Your task to perform on an android device: Go to network settings Image 0: 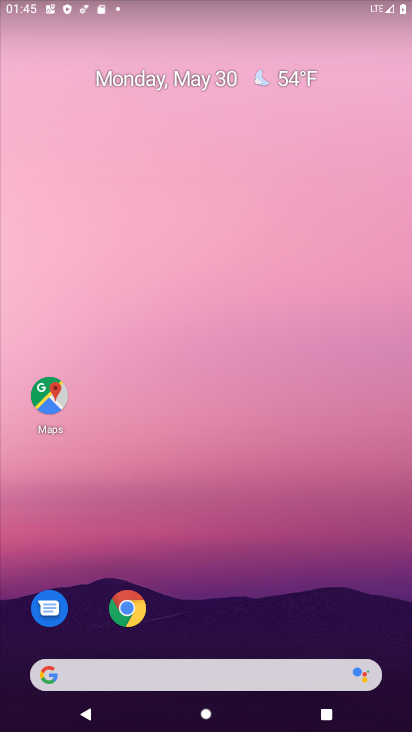
Step 0: drag from (236, 529) to (235, 242)
Your task to perform on an android device: Go to network settings Image 1: 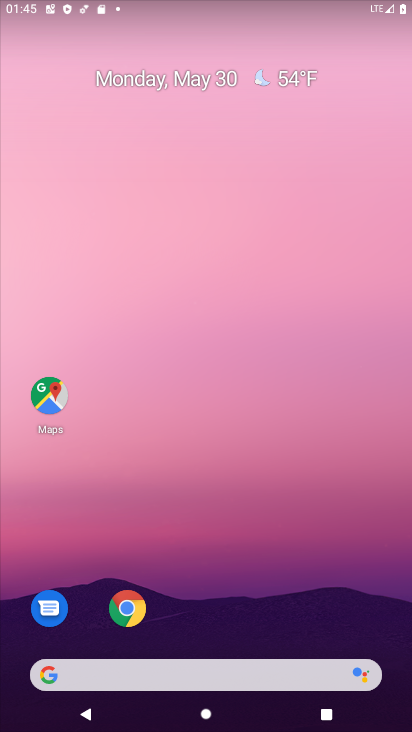
Step 1: click (233, 604)
Your task to perform on an android device: Go to network settings Image 2: 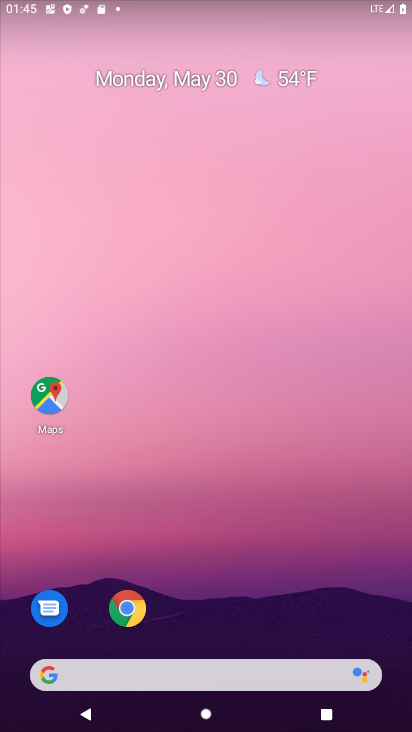
Step 2: drag from (205, 516) to (226, 296)
Your task to perform on an android device: Go to network settings Image 3: 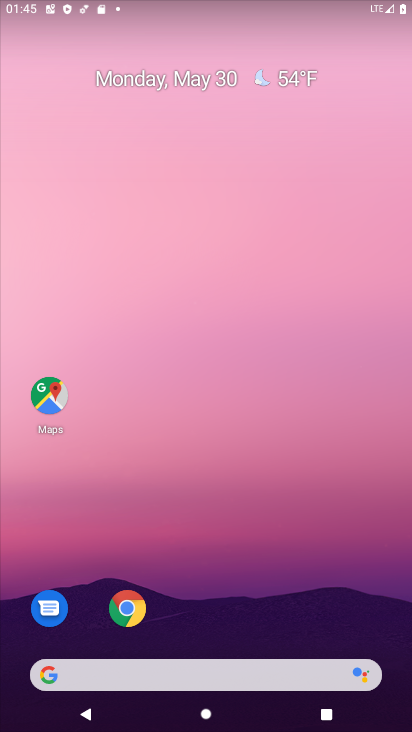
Step 3: drag from (186, 615) to (184, 155)
Your task to perform on an android device: Go to network settings Image 4: 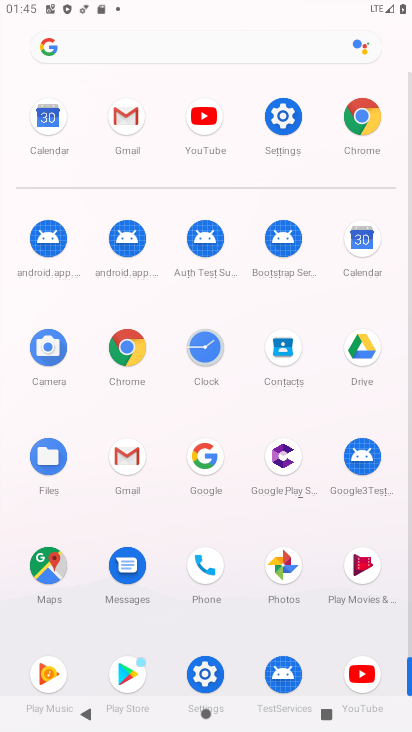
Step 4: click (280, 106)
Your task to perform on an android device: Go to network settings Image 5: 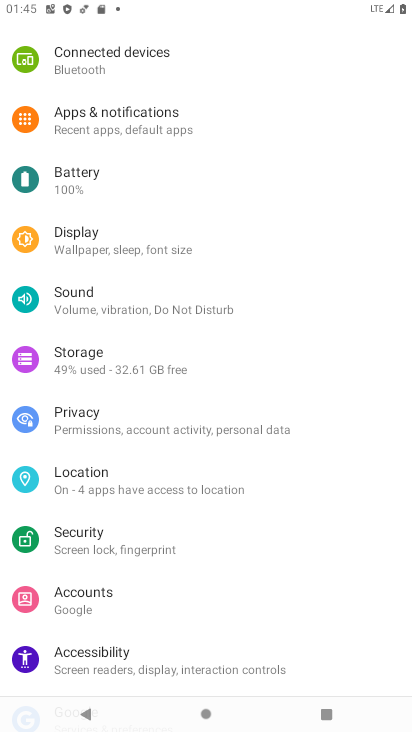
Step 5: click (239, 132)
Your task to perform on an android device: Go to network settings Image 6: 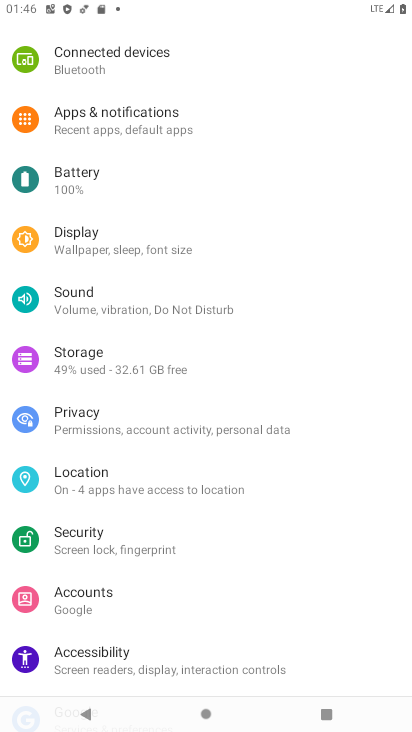
Step 6: drag from (238, 136) to (263, 317)
Your task to perform on an android device: Go to network settings Image 7: 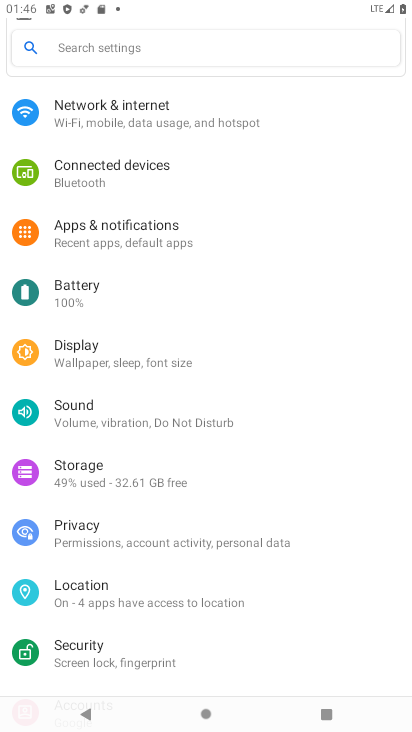
Step 7: click (110, 109)
Your task to perform on an android device: Go to network settings Image 8: 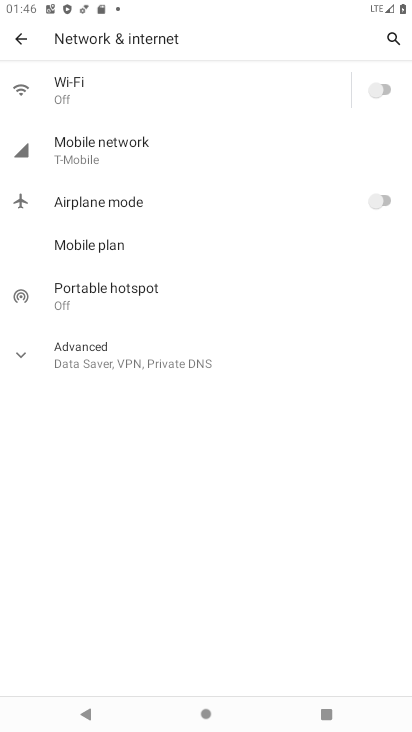
Step 8: task complete